Your task to perform on an android device: Open network settings Image 0: 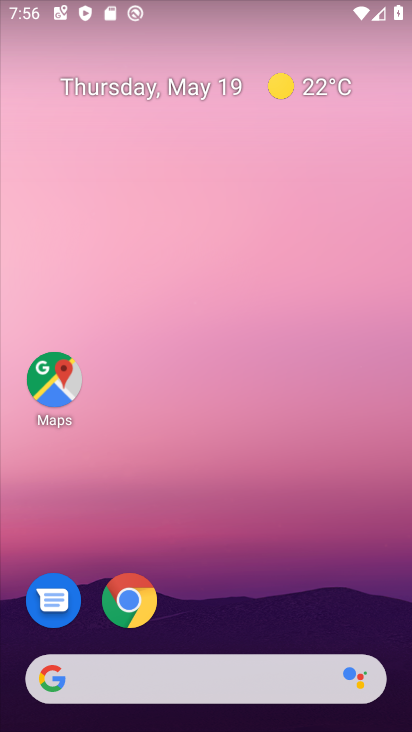
Step 0: drag from (302, 582) to (312, 177)
Your task to perform on an android device: Open network settings Image 1: 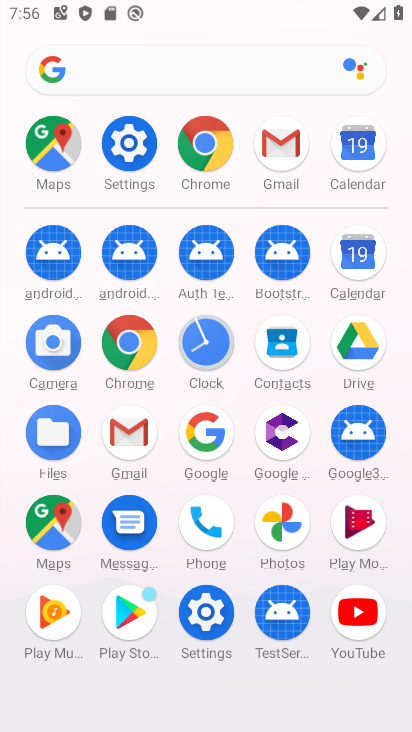
Step 1: click (200, 621)
Your task to perform on an android device: Open network settings Image 2: 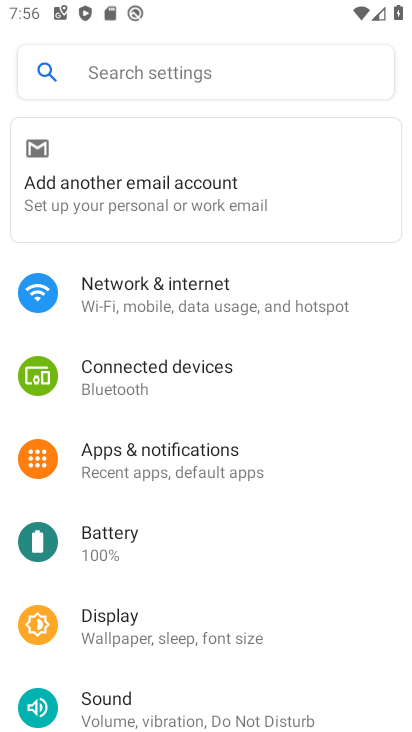
Step 2: click (153, 291)
Your task to perform on an android device: Open network settings Image 3: 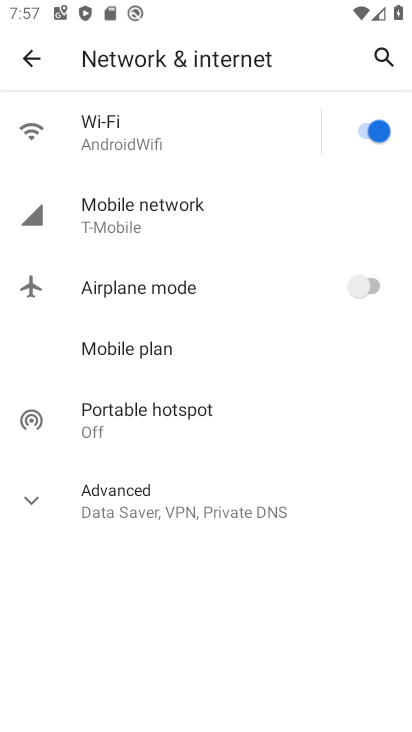
Step 3: click (140, 194)
Your task to perform on an android device: Open network settings Image 4: 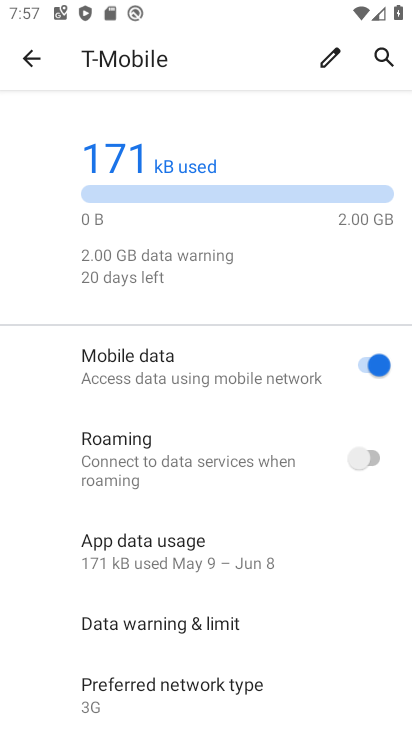
Step 4: task complete